Your task to perform on an android device: Do I have any events tomorrow? Image 0: 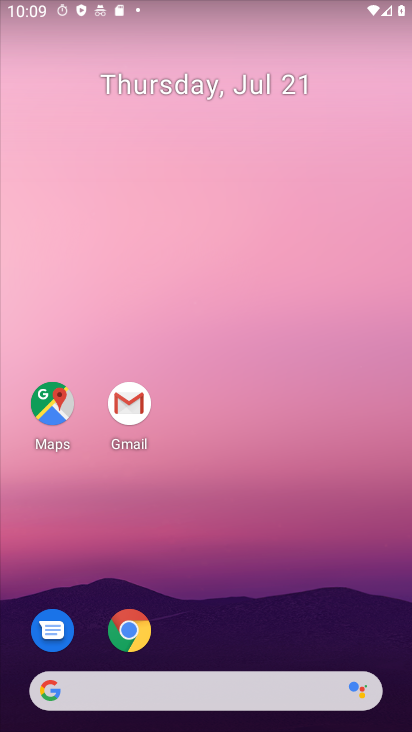
Step 0: drag from (235, 553) to (221, 351)
Your task to perform on an android device: Do I have any events tomorrow? Image 1: 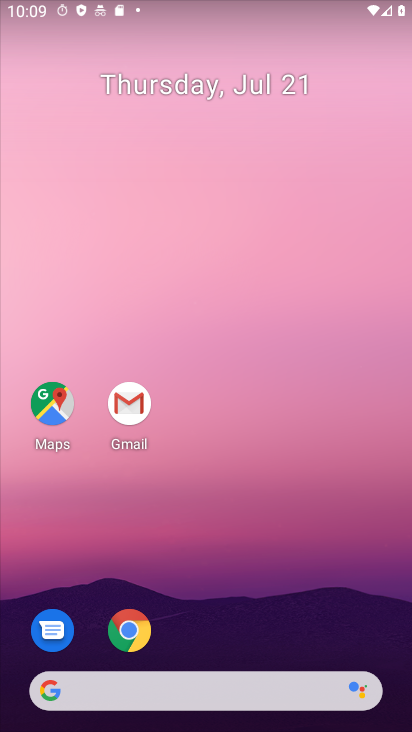
Step 1: drag from (241, 501) to (241, 207)
Your task to perform on an android device: Do I have any events tomorrow? Image 2: 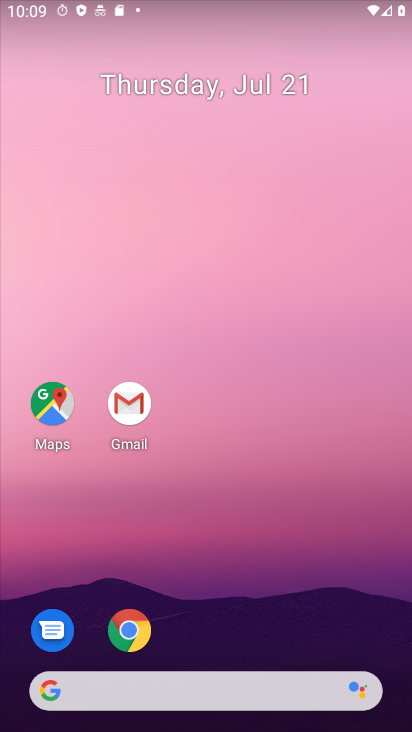
Step 2: drag from (256, 621) to (192, 201)
Your task to perform on an android device: Do I have any events tomorrow? Image 3: 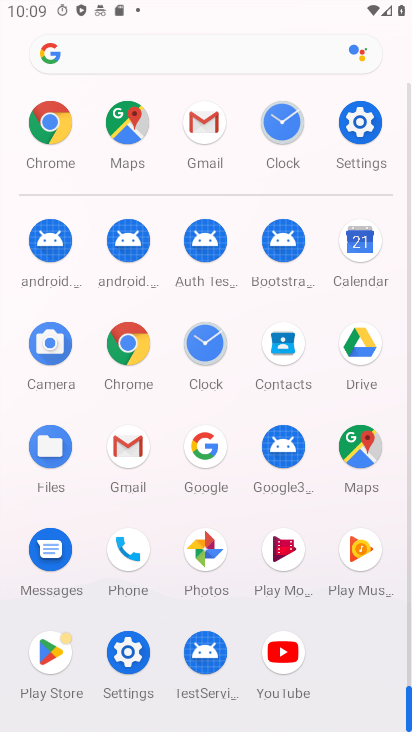
Step 3: click (360, 242)
Your task to perform on an android device: Do I have any events tomorrow? Image 4: 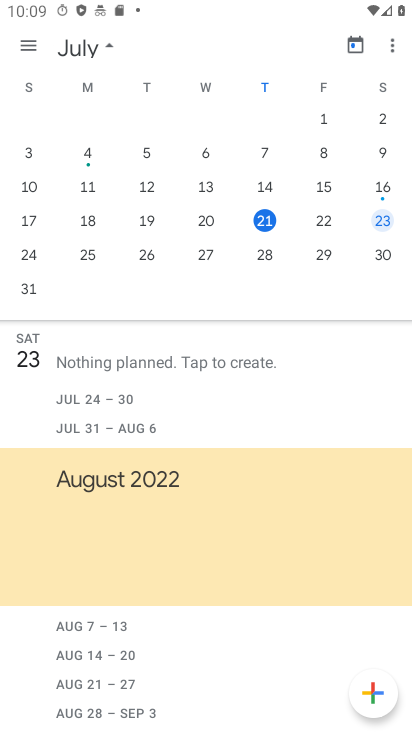
Step 4: click (378, 220)
Your task to perform on an android device: Do I have any events tomorrow? Image 5: 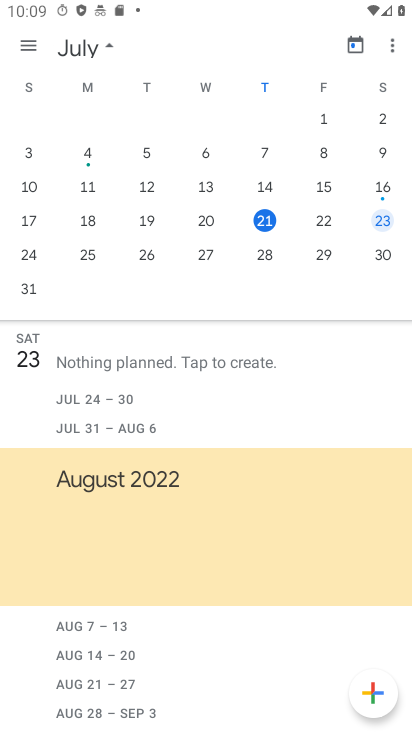
Step 5: click (379, 219)
Your task to perform on an android device: Do I have any events tomorrow? Image 6: 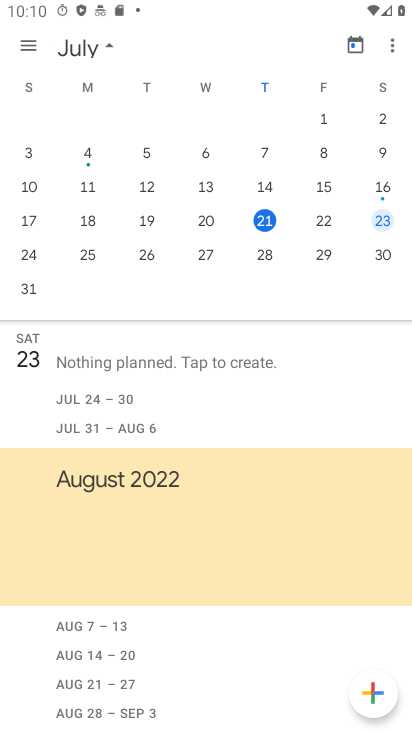
Step 6: task complete